Your task to perform on an android device: Open Maps and search for coffee Image 0: 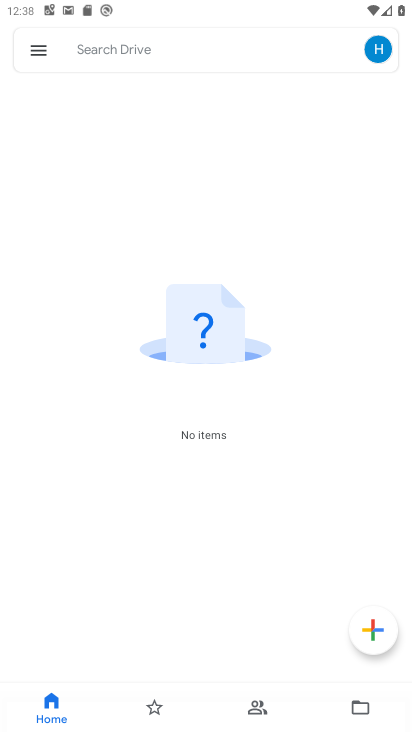
Step 0: press home button
Your task to perform on an android device: Open Maps and search for coffee Image 1: 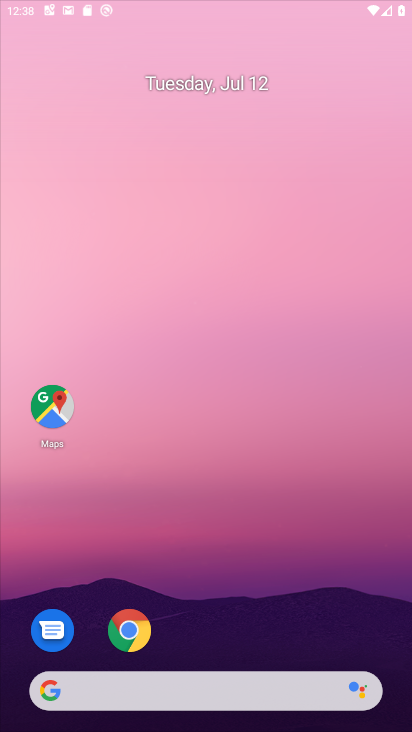
Step 1: drag from (193, 678) to (244, 114)
Your task to perform on an android device: Open Maps and search for coffee Image 2: 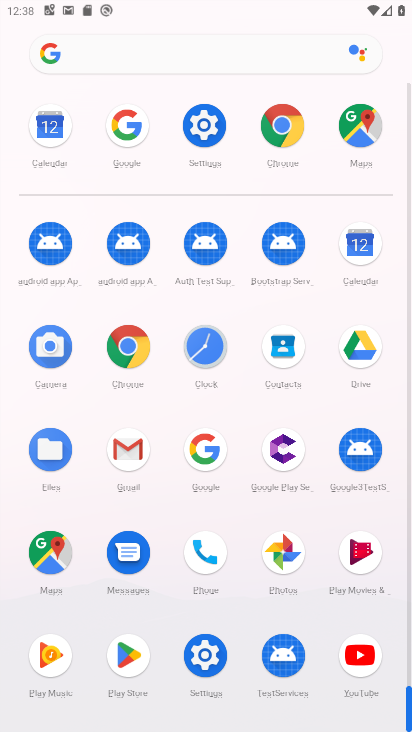
Step 2: click (47, 568)
Your task to perform on an android device: Open Maps and search for coffee Image 3: 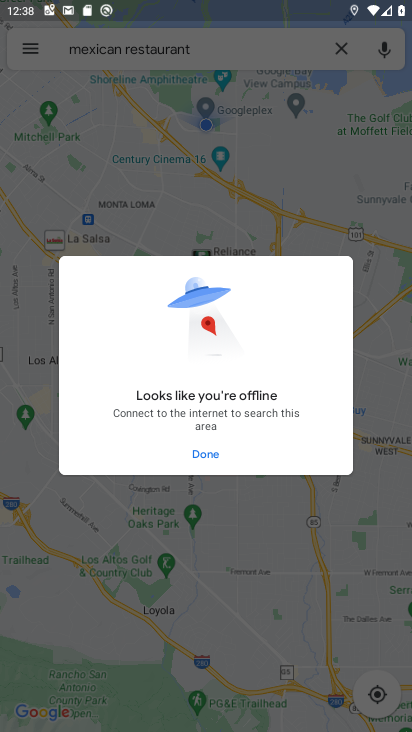
Step 3: click (197, 461)
Your task to perform on an android device: Open Maps and search for coffee Image 4: 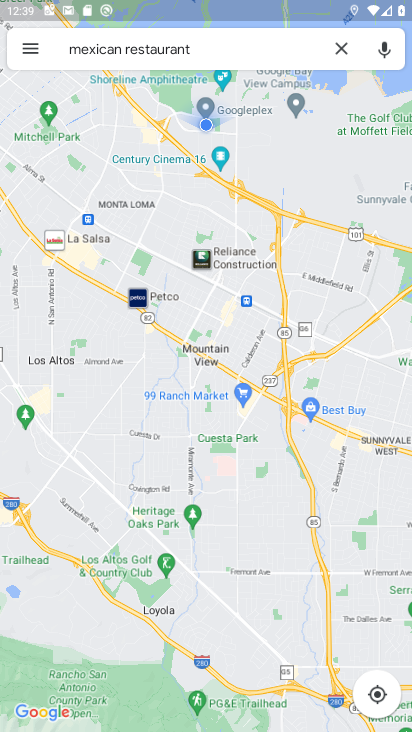
Step 4: click (281, 56)
Your task to perform on an android device: Open Maps and search for coffee Image 5: 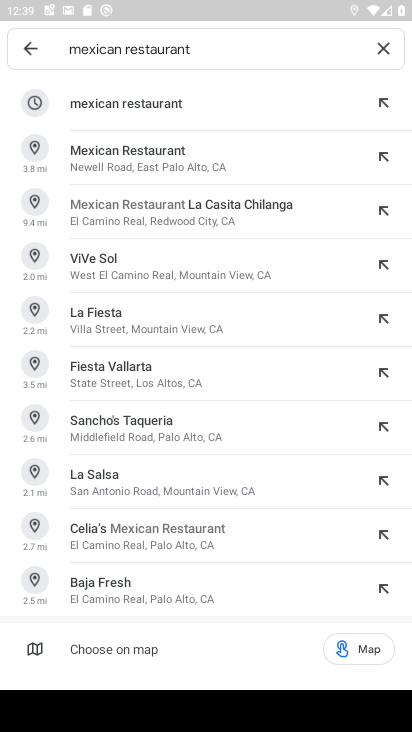
Step 5: click (381, 52)
Your task to perform on an android device: Open Maps and search for coffee Image 6: 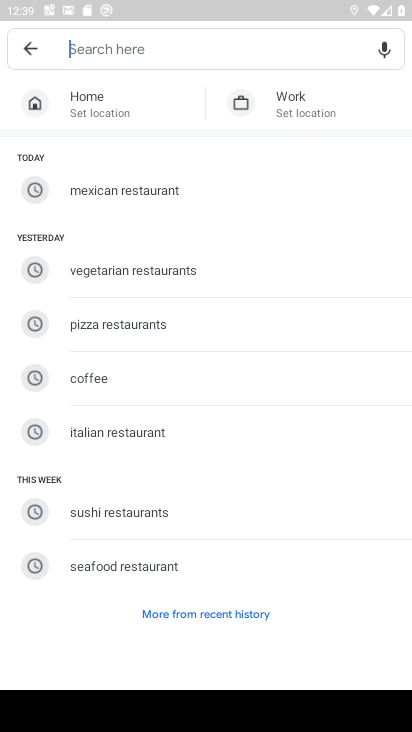
Step 6: click (168, 383)
Your task to perform on an android device: Open Maps and search for coffee Image 7: 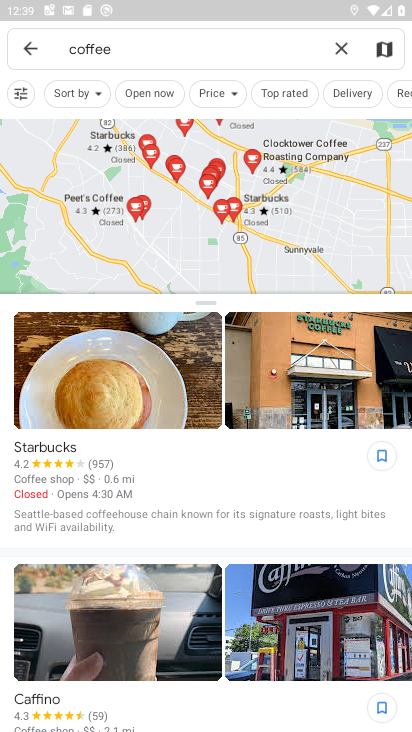
Step 7: task complete